Your task to perform on an android device: turn off location Image 0: 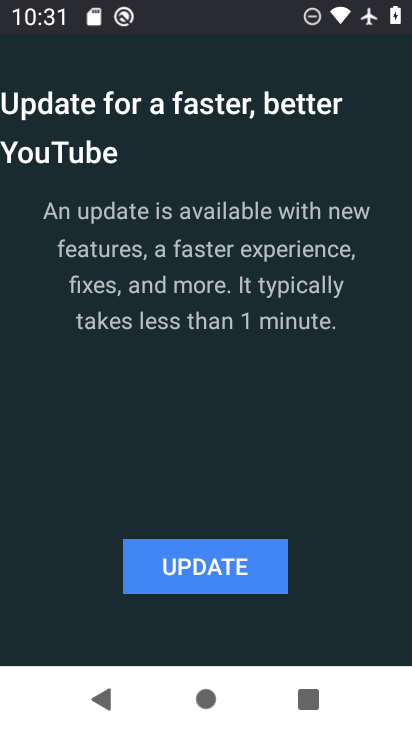
Step 0: press back button
Your task to perform on an android device: turn off location Image 1: 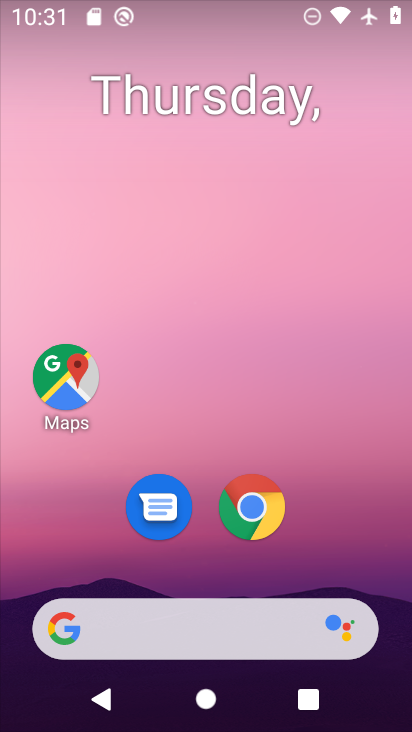
Step 1: drag from (314, 516) to (290, 6)
Your task to perform on an android device: turn off location Image 2: 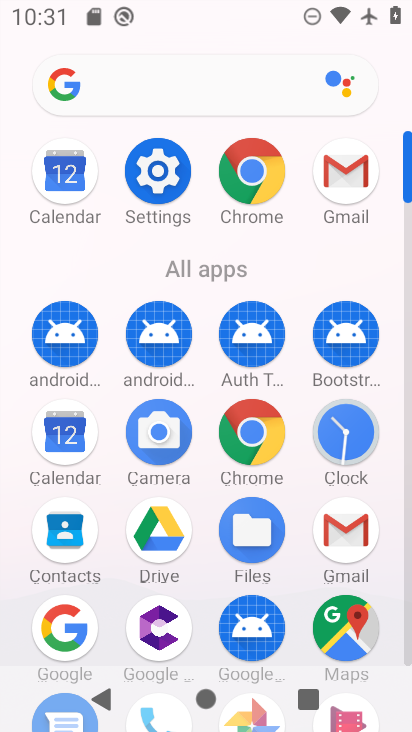
Step 2: click (158, 165)
Your task to perform on an android device: turn off location Image 3: 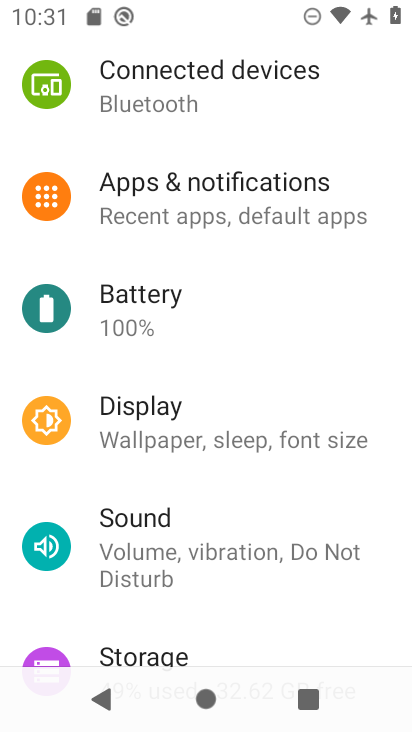
Step 3: drag from (240, 495) to (247, 109)
Your task to perform on an android device: turn off location Image 4: 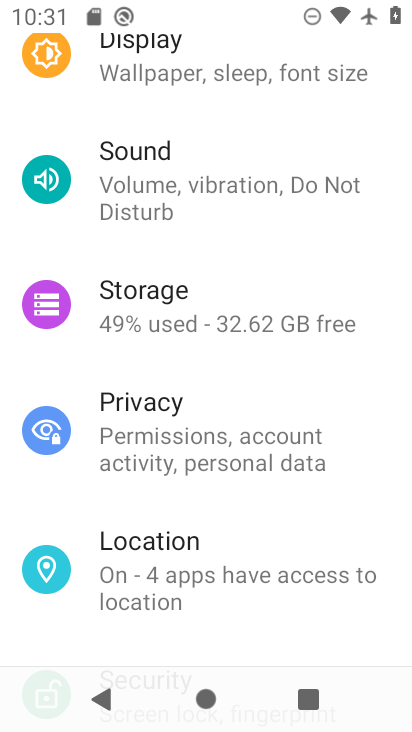
Step 4: click (164, 539)
Your task to perform on an android device: turn off location Image 5: 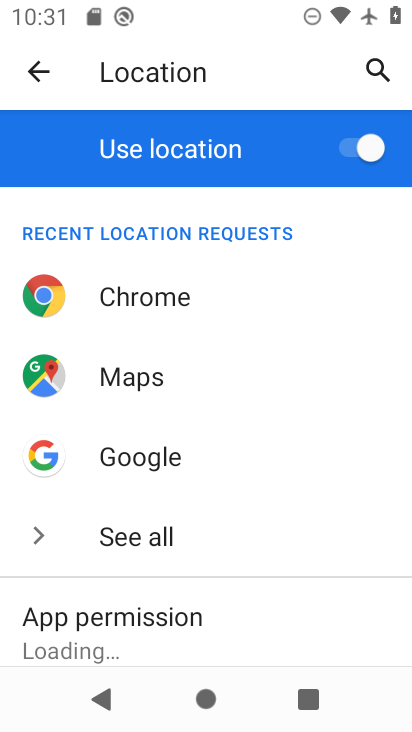
Step 5: click (348, 140)
Your task to perform on an android device: turn off location Image 6: 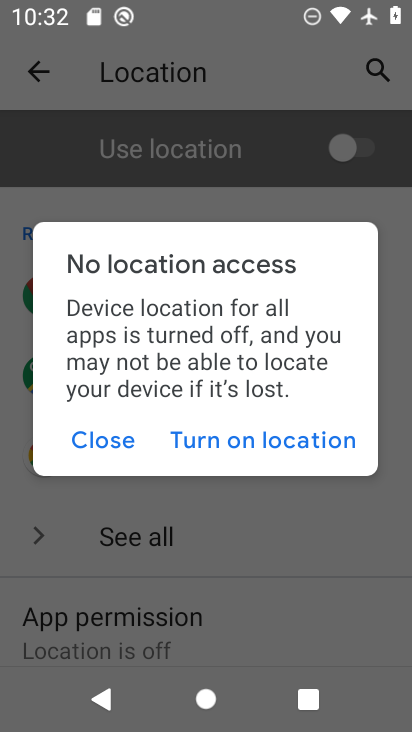
Step 6: click (109, 441)
Your task to perform on an android device: turn off location Image 7: 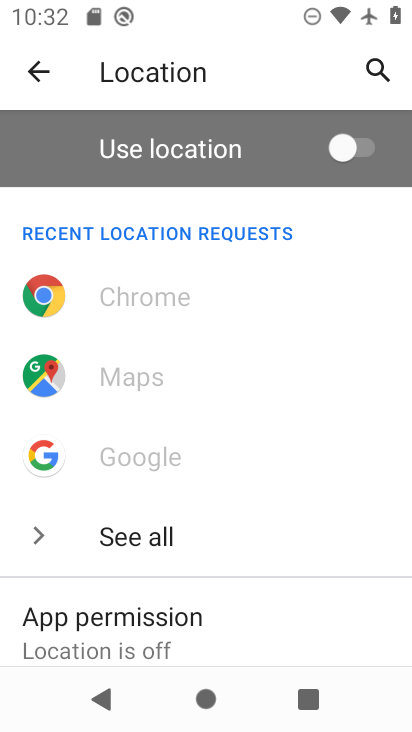
Step 7: task complete